Your task to perform on an android device: Turn on the flashlight Image 0: 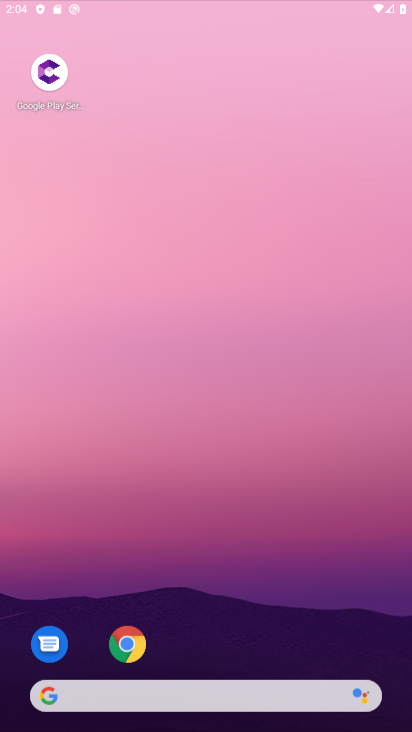
Step 0: click (298, 115)
Your task to perform on an android device: Turn on the flashlight Image 1: 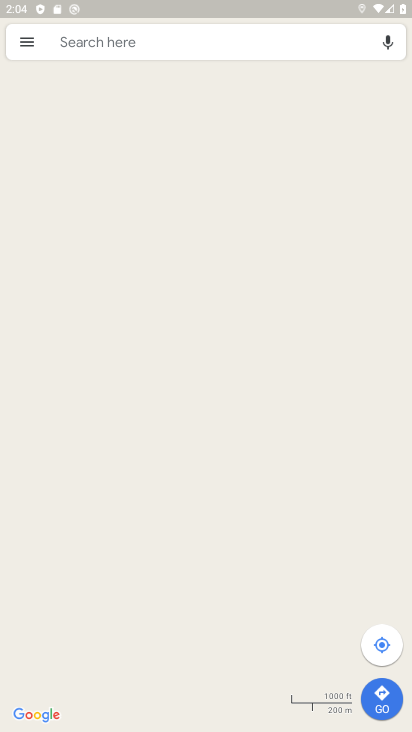
Step 1: press back button
Your task to perform on an android device: Turn on the flashlight Image 2: 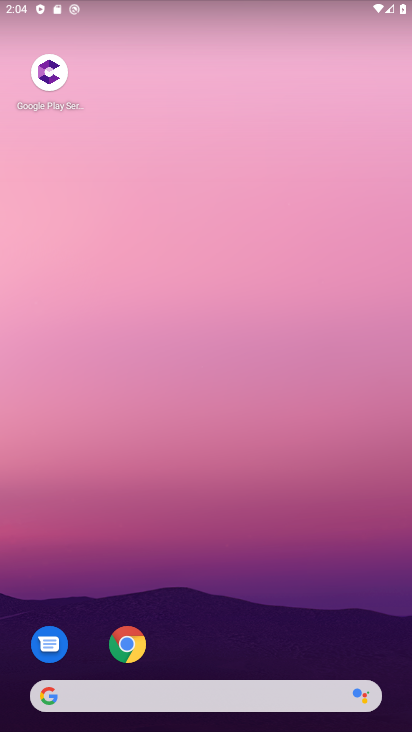
Step 2: drag from (236, 578) to (265, 11)
Your task to perform on an android device: Turn on the flashlight Image 3: 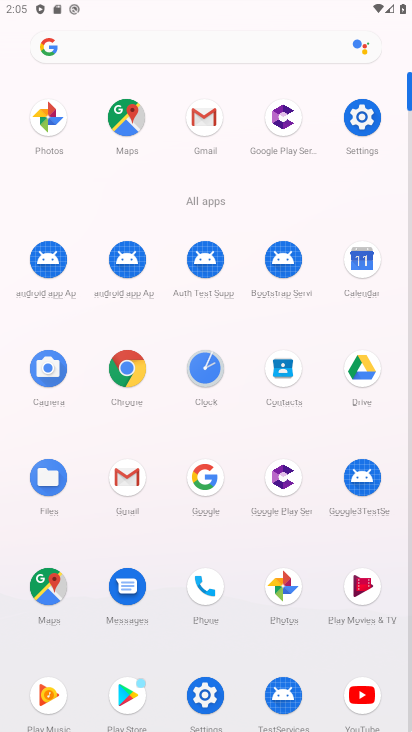
Step 3: click (366, 112)
Your task to perform on an android device: Turn on the flashlight Image 4: 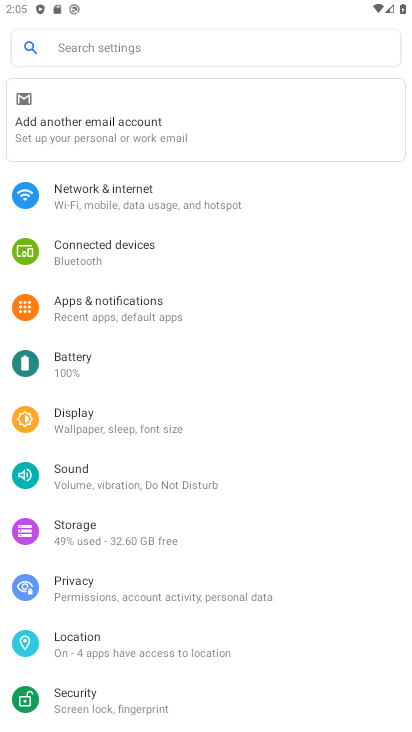
Step 4: click (69, 42)
Your task to perform on an android device: Turn on the flashlight Image 5: 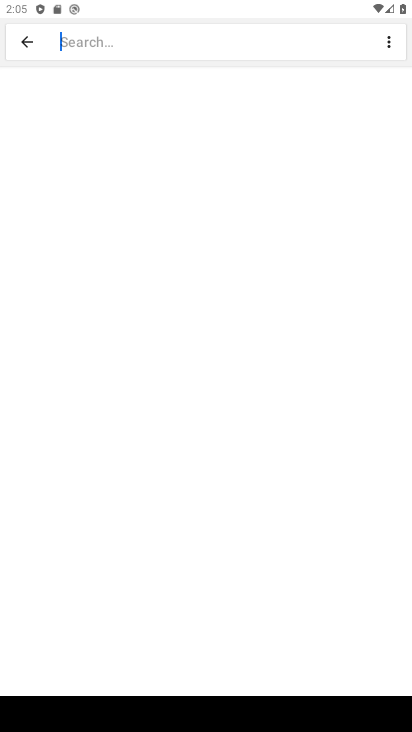
Step 5: click (112, 47)
Your task to perform on an android device: Turn on the flashlight Image 6: 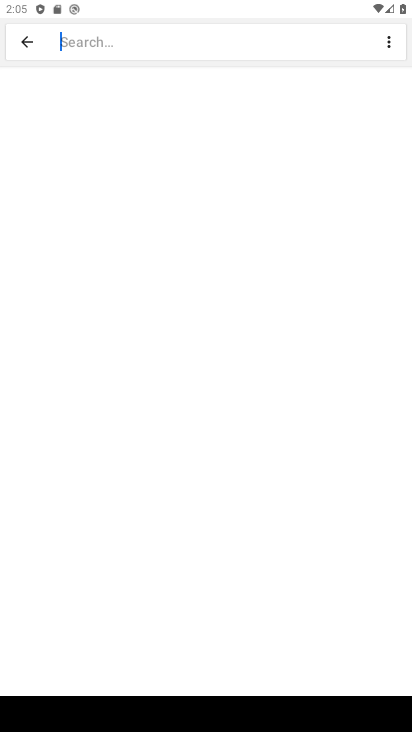
Step 6: type "flashlight"
Your task to perform on an android device: Turn on the flashlight Image 7: 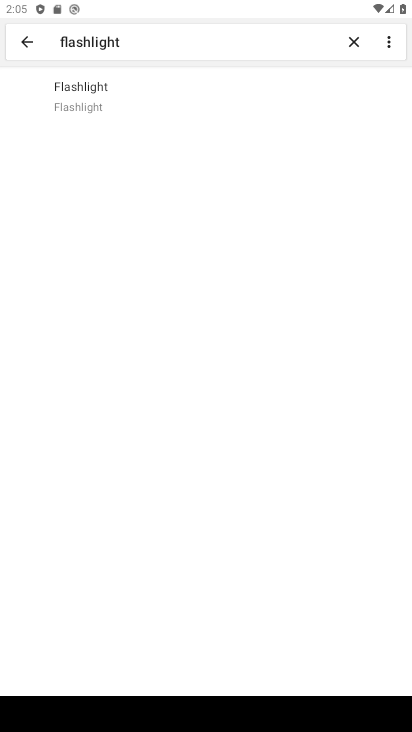
Step 7: click (76, 96)
Your task to perform on an android device: Turn on the flashlight Image 8: 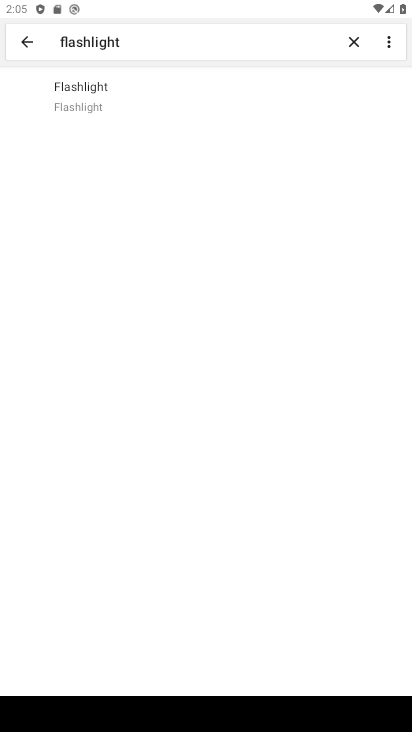
Step 8: task complete